Your task to perform on an android device: What's the weather? Image 0: 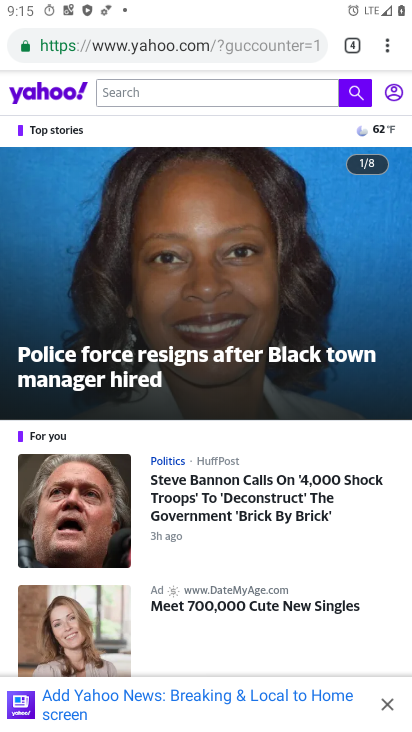
Step 0: press home button
Your task to perform on an android device: What's the weather? Image 1: 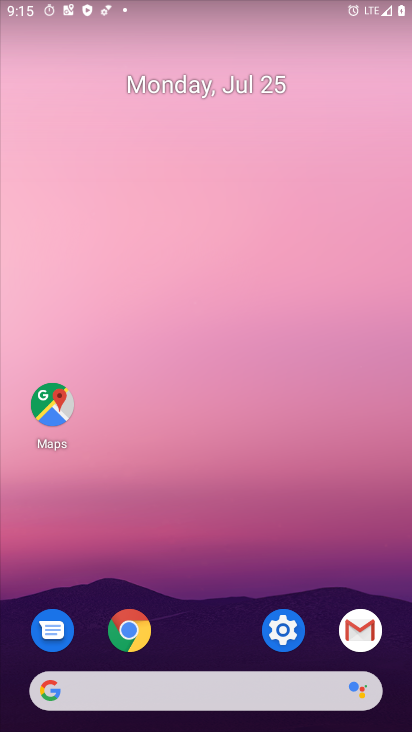
Step 1: click (201, 682)
Your task to perform on an android device: What's the weather? Image 2: 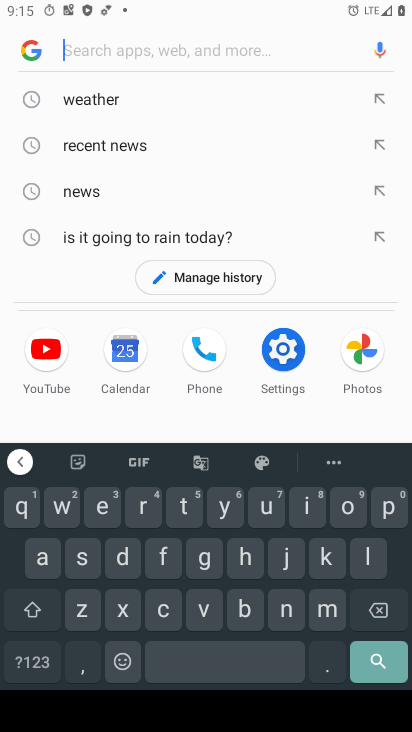
Step 2: click (121, 107)
Your task to perform on an android device: What's the weather? Image 3: 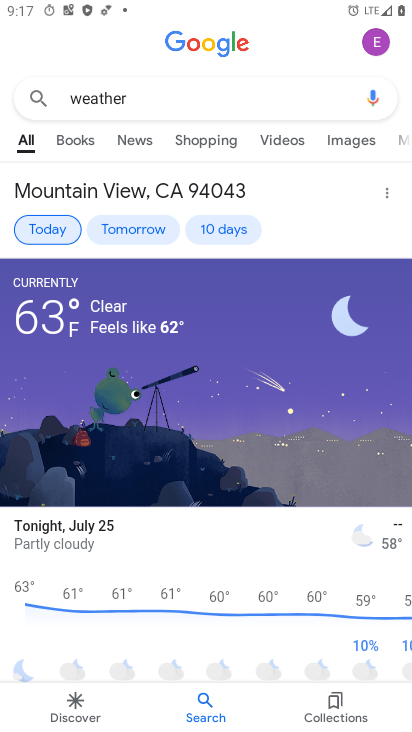
Step 3: task complete